Your task to perform on an android device: clear history in the chrome app Image 0: 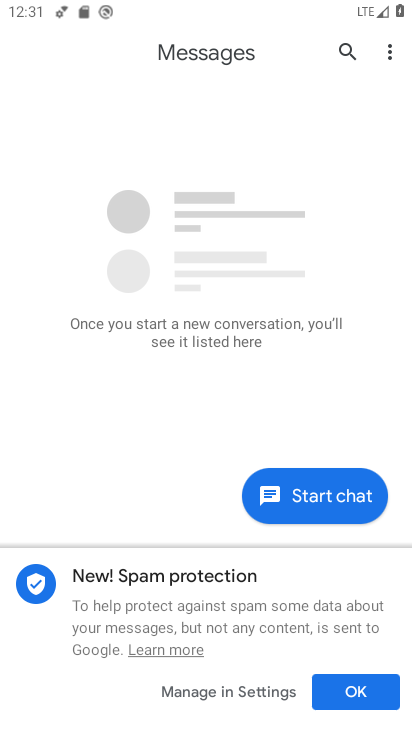
Step 0: press home button
Your task to perform on an android device: clear history in the chrome app Image 1: 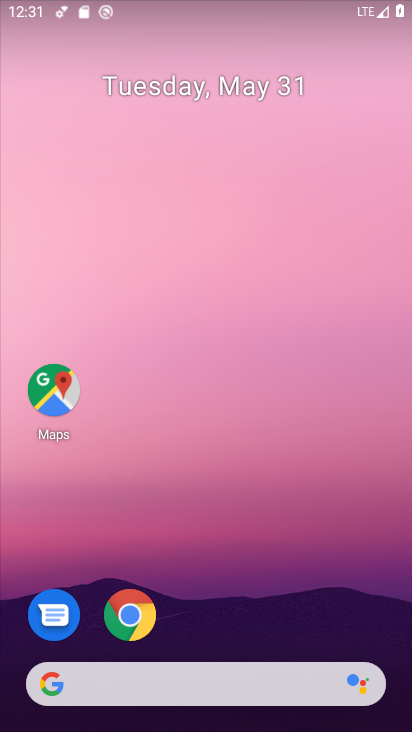
Step 1: click (127, 598)
Your task to perform on an android device: clear history in the chrome app Image 2: 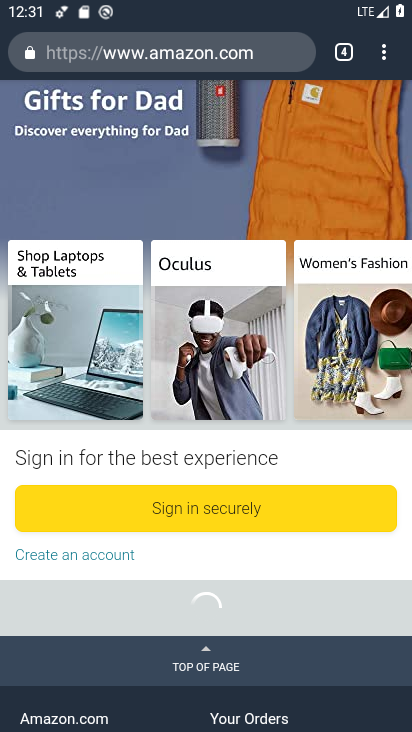
Step 2: click (381, 56)
Your task to perform on an android device: clear history in the chrome app Image 3: 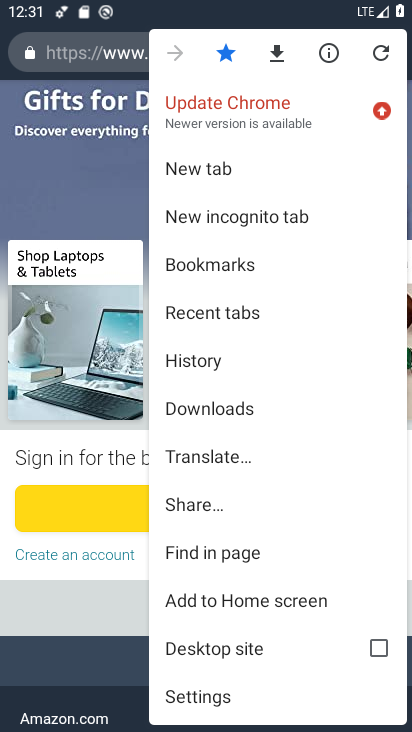
Step 3: click (202, 367)
Your task to perform on an android device: clear history in the chrome app Image 4: 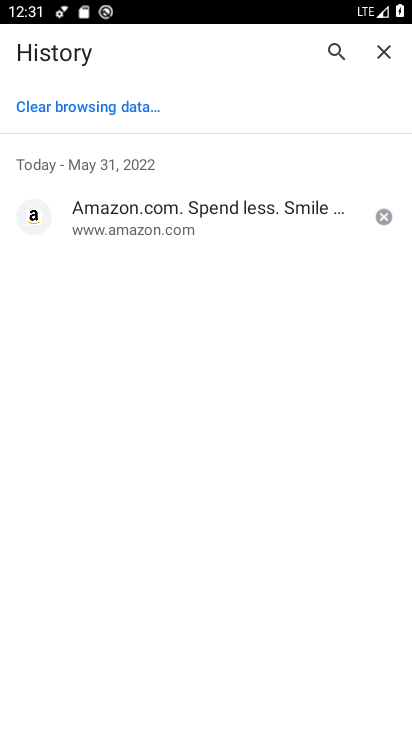
Step 4: click (92, 105)
Your task to perform on an android device: clear history in the chrome app Image 5: 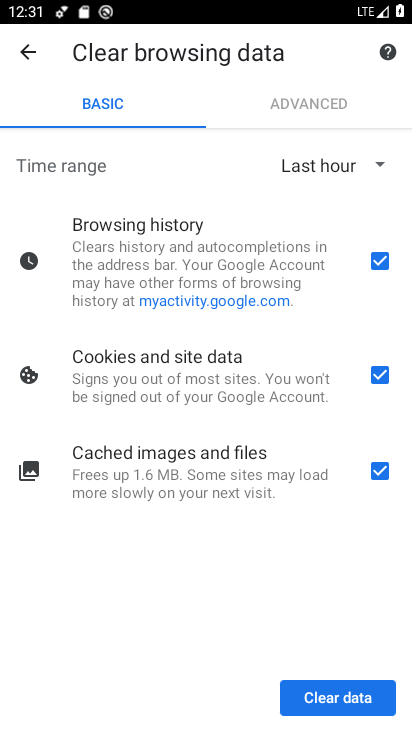
Step 5: click (346, 694)
Your task to perform on an android device: clear history in the chrome app Image 6: 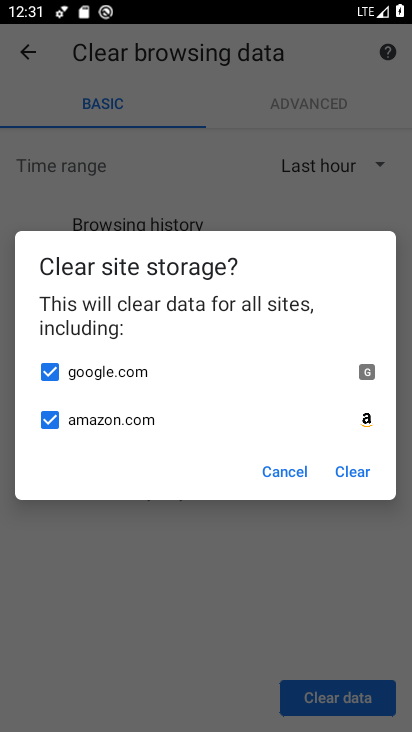
Step 6: click (343, 463)
Your task to perform on an android device: clear history in the chrome app Image 7: 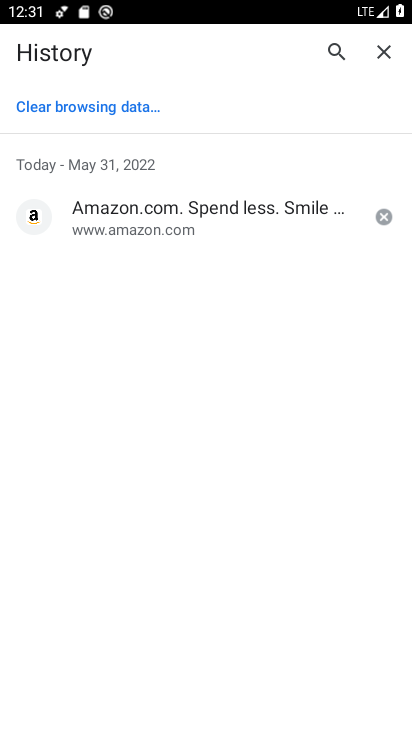
Step 7: task complete